Your task to perform on an android device: Open Google Maps and go to "Timeline" Image 0: 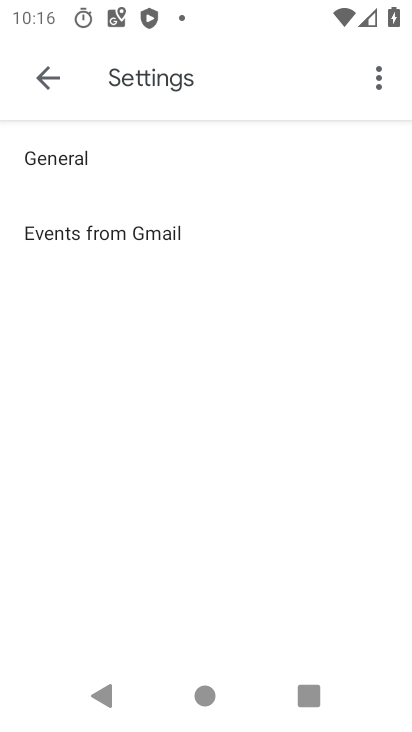
Step 0: press home button
Your task to perform on an android device: Open Google Maps and go to "Timeline" Image 1: 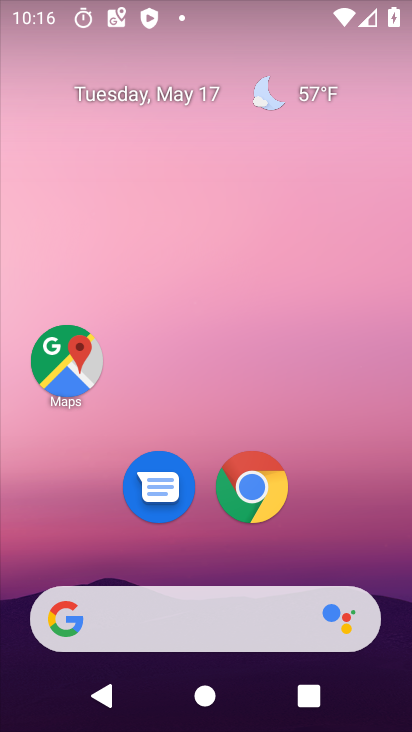
Step 1: drag from (228, 725) to (251, 94)
Your task to perform on an android device: Open Google Maps and go to "Timeline" Image 2: 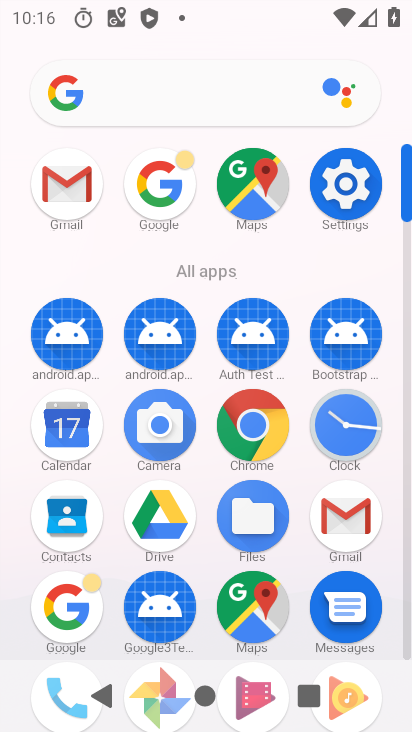
Step 2: click (261, 602)
Your task to perform on an android device: Open Google Maps and go to "Timeline" Image 3: 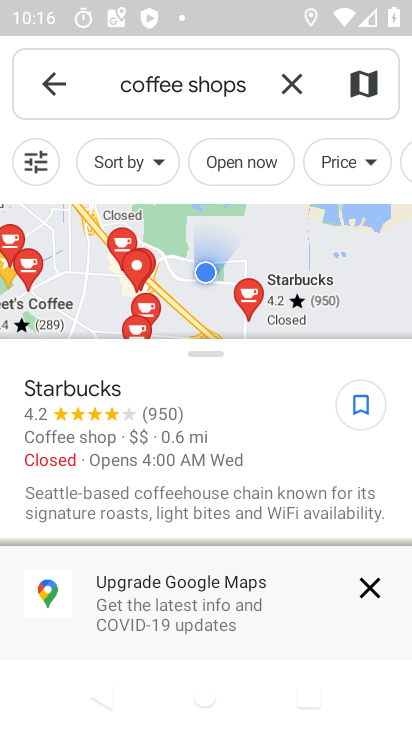
Step 3: click (51, 85)
Your task to perform on an android device: Open Google Maps and go to "Timeline" Image 4: 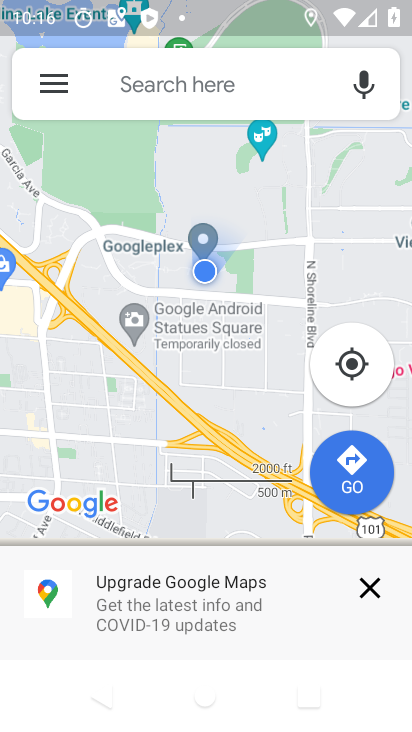
Step 4: click (53, 80)
Your task to perform on an android device: Open Google Maps and go to "Timeline" Image 5: 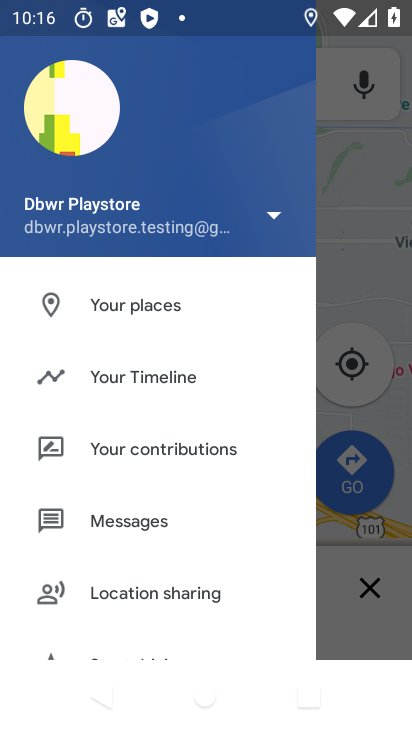
Step 5: click (138, 375)
Your task to perform on an android device: Open Google Maps and go to "Timeline" Image 6: 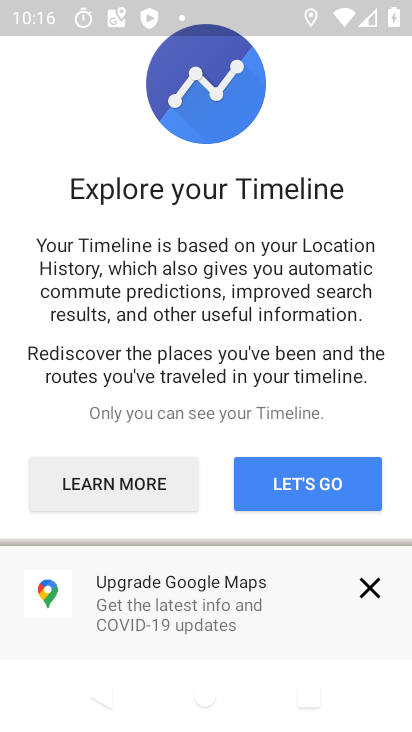
Step 6: click (368, 580)
Your task to perform on an android device: Open Google Maps and go to "Timeline" Image 7: 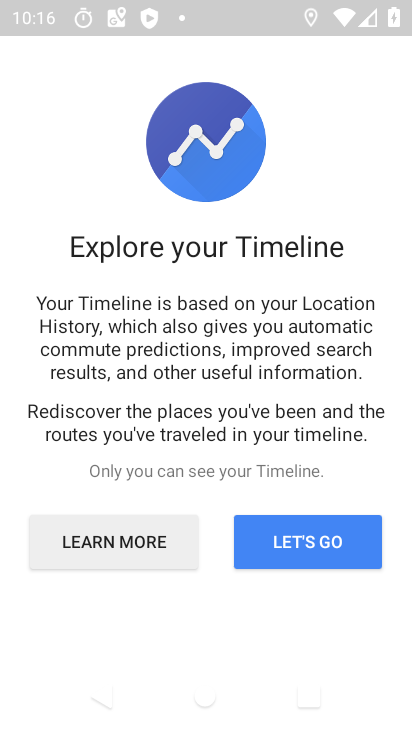
Step 7: click (280, 541)
Your task to perform on an android device: Open Google Maps and go to "Timeline" Image 8: 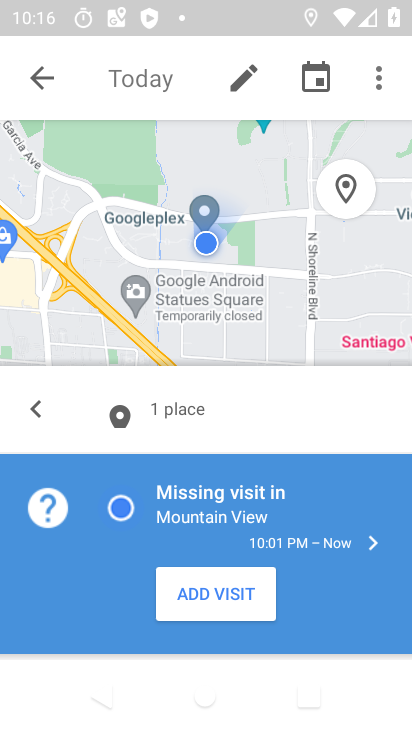
Step 8: task complete